Your task to perform on an android device: open app "PUBG MOBILE" (install if not already installed) Image 0: 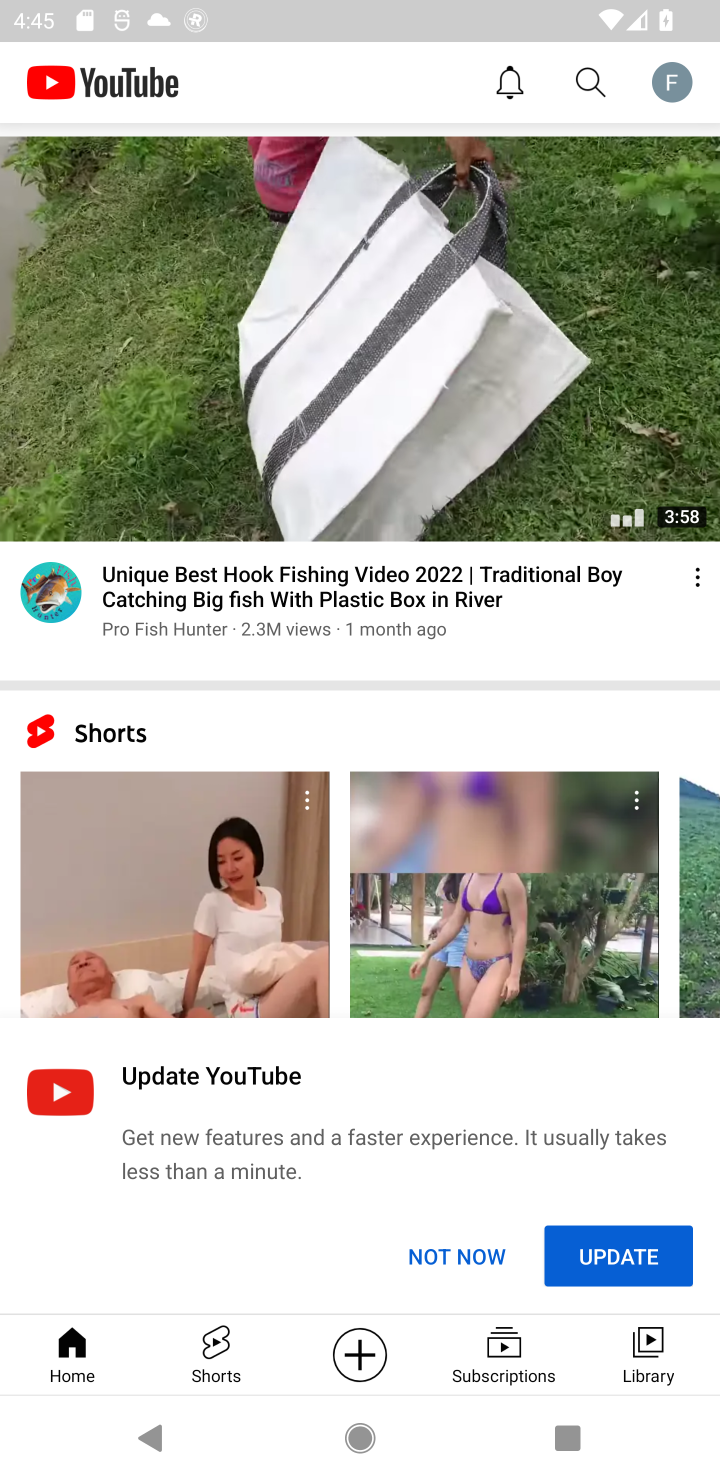
Step 0: press home button
Your task to perform on an android device: open app "PUBG MOBILE" (install if not already installed) Image 1: 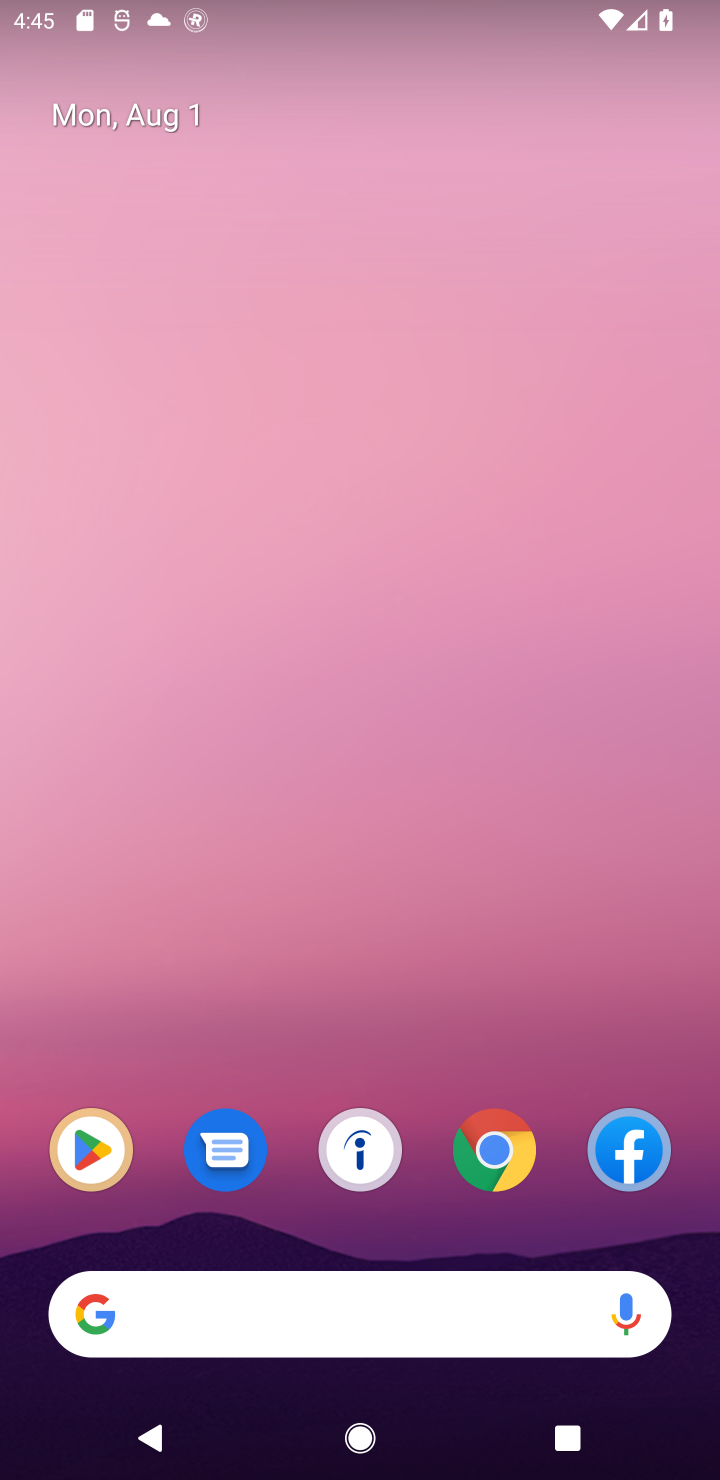
Step 1: click (228, 1276)
Your task to perform on an android device: open app "PUBG MOBILE" (install if not already installed) Image 2: 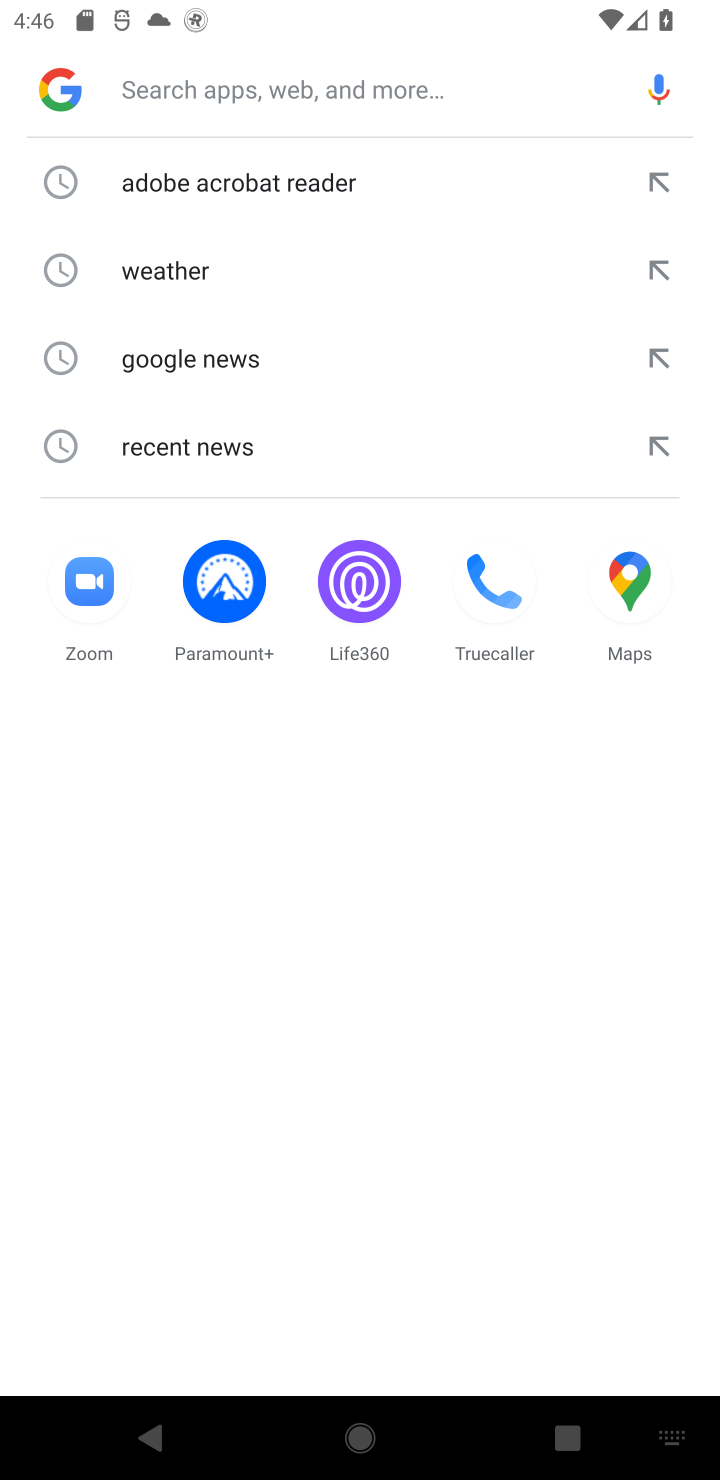
Step 2: press home button
Your task to perform on an android device: open app "PUBG MOBILE" (install if not already installed) Image 3: 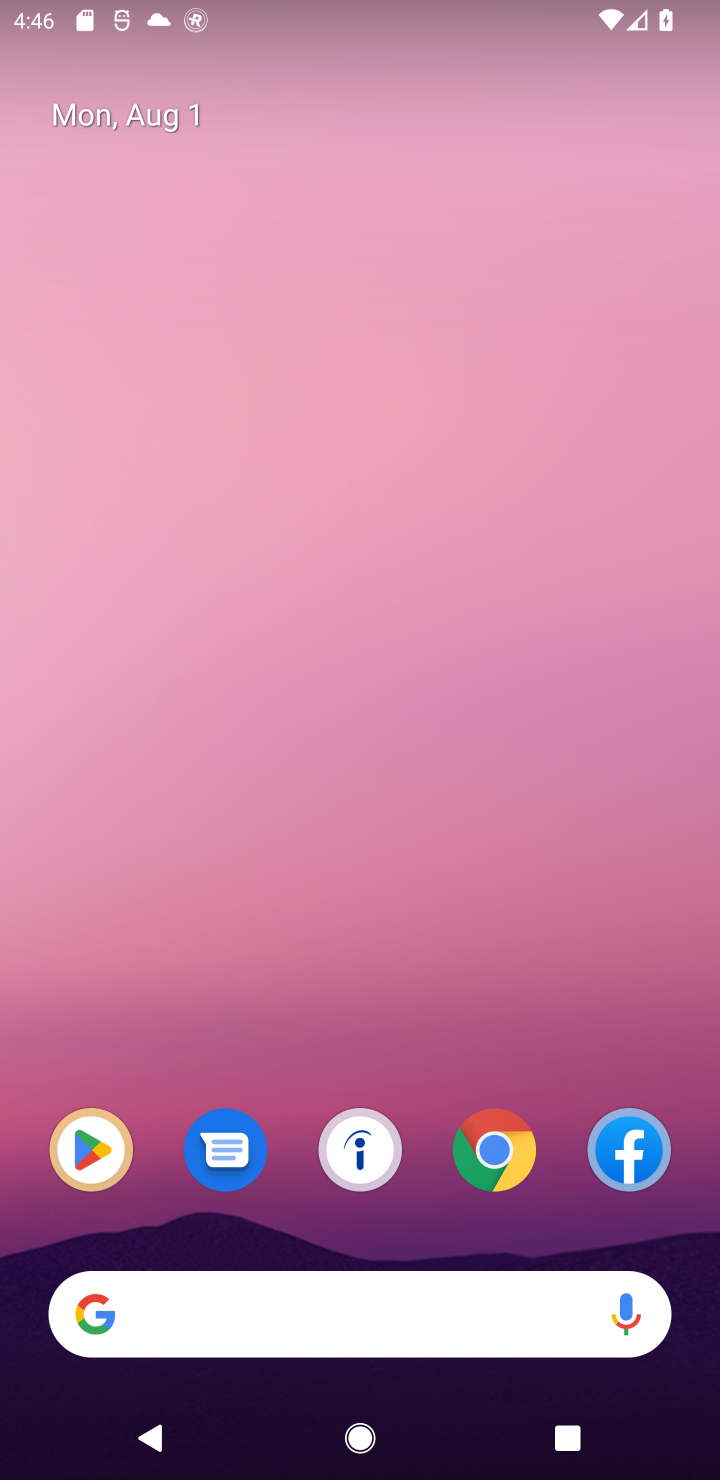
Step 3: click (93, 1178)
Your task to perform on an android device: open app "PUBG MOBILE" (install if not already installed) Image 4: 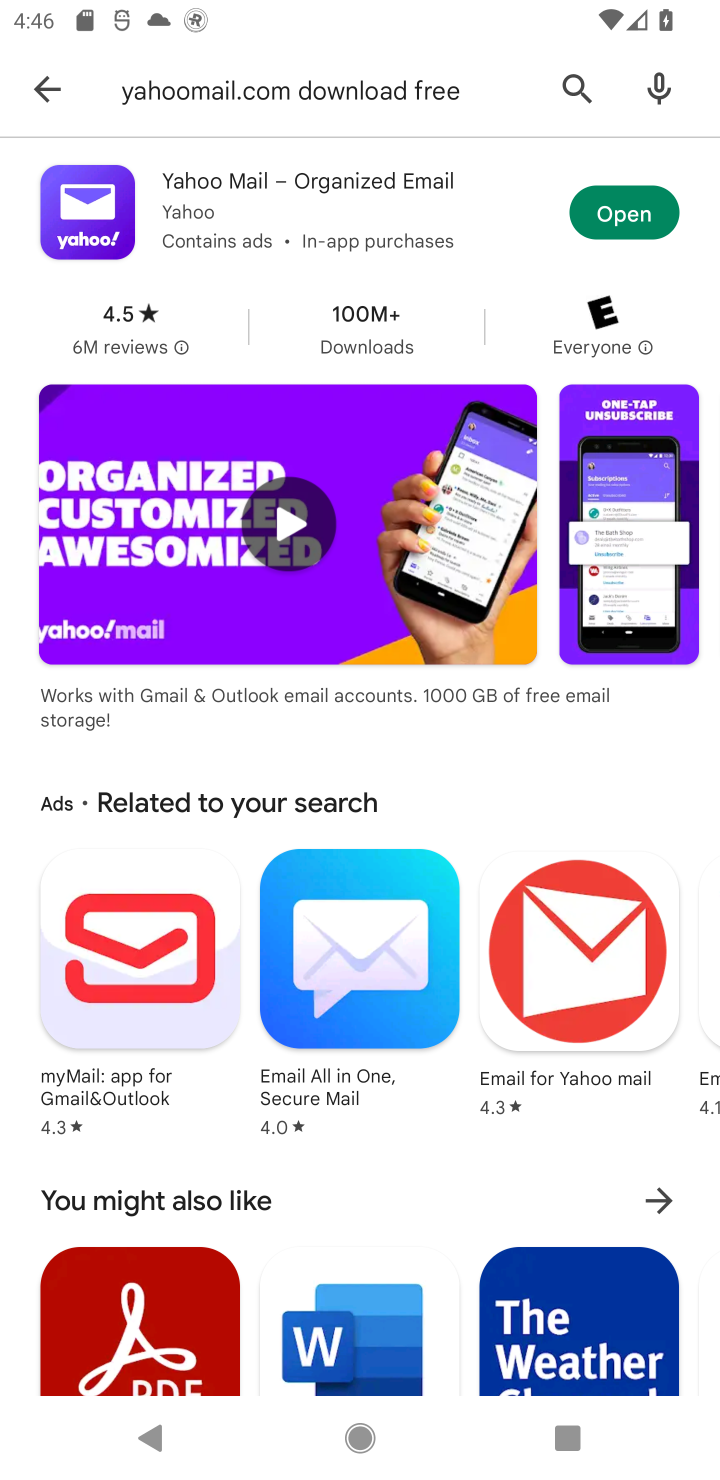
Step 4: click (563, 79)
Your task to perform on an android device: open app "PUBG MOBILE" (install if not already installed) Image 5: 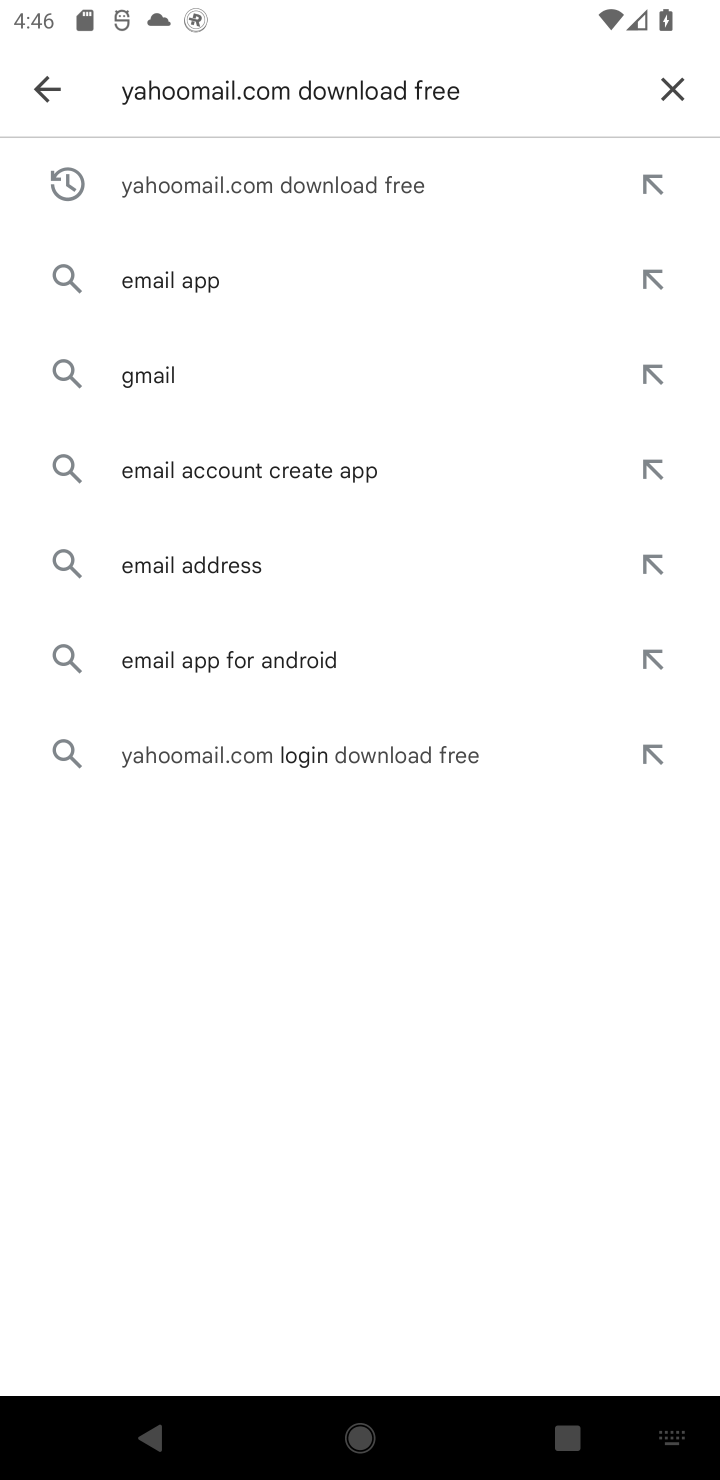
Step 5: click (652, 88)
Your task to perform on an android device: open app "PUBG MOBILE" (install if not already installed) Image 6: 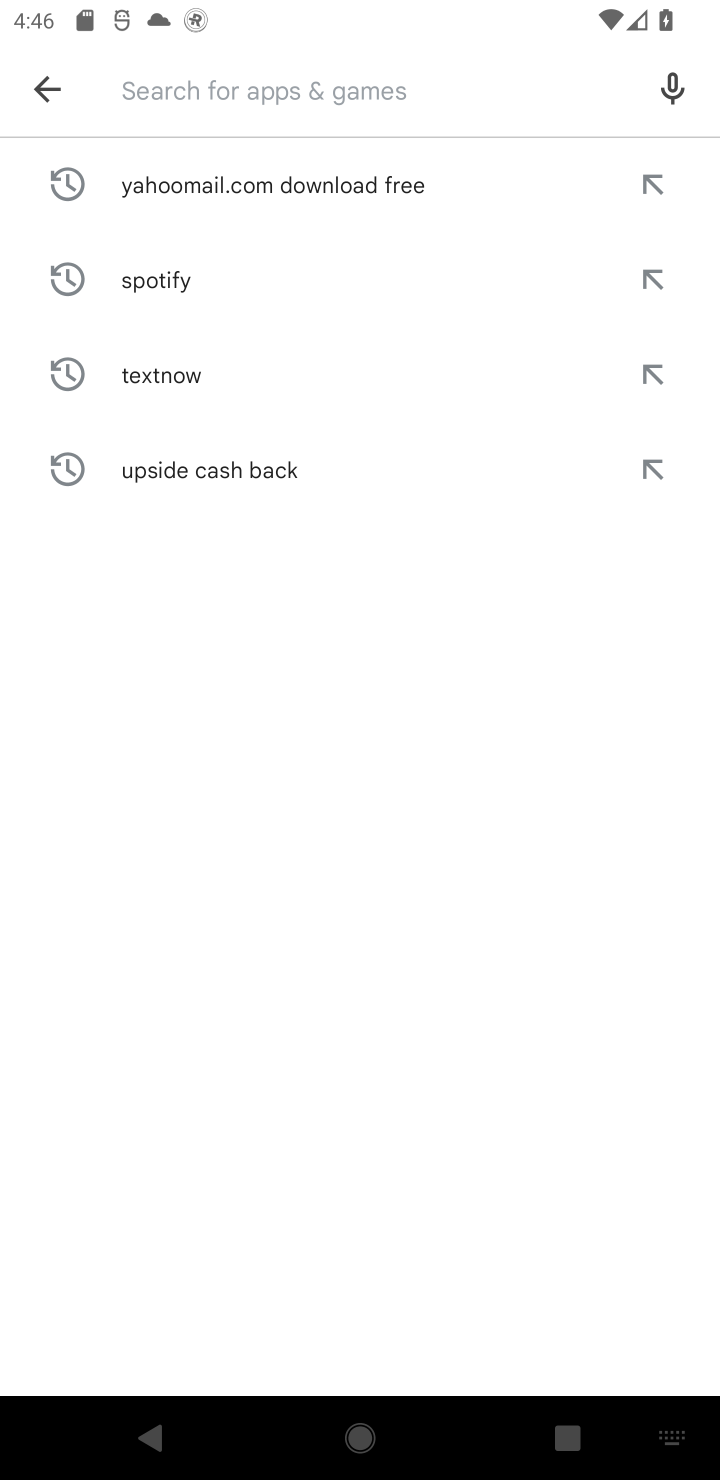
Step 6: type "pubg"
Your task to perform on an android device: open app "PUBG MOBILE" (install if not already installed) Image 7: 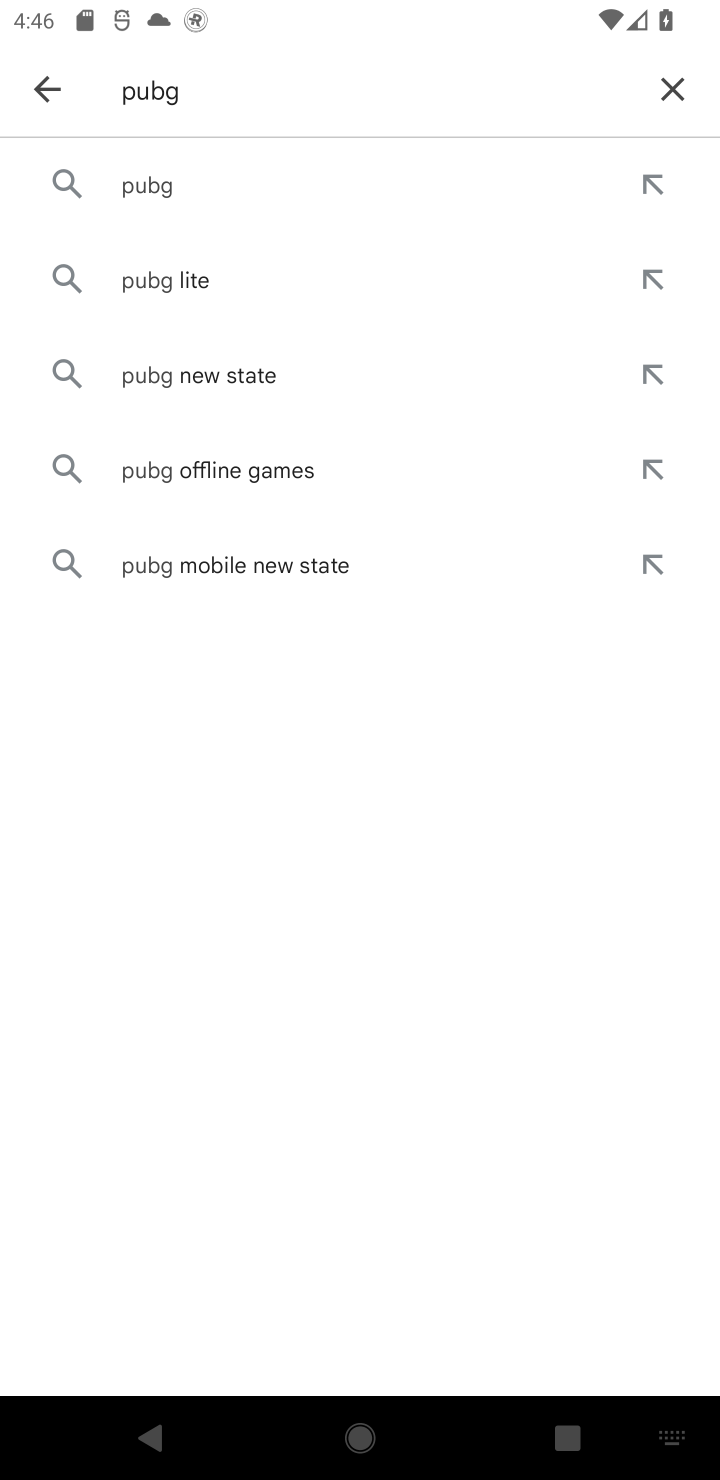
Step 7: click (206, 202)
Your task to perform on an android device: open app "PUBG MOBILE" (install if not already installed) Image 8: 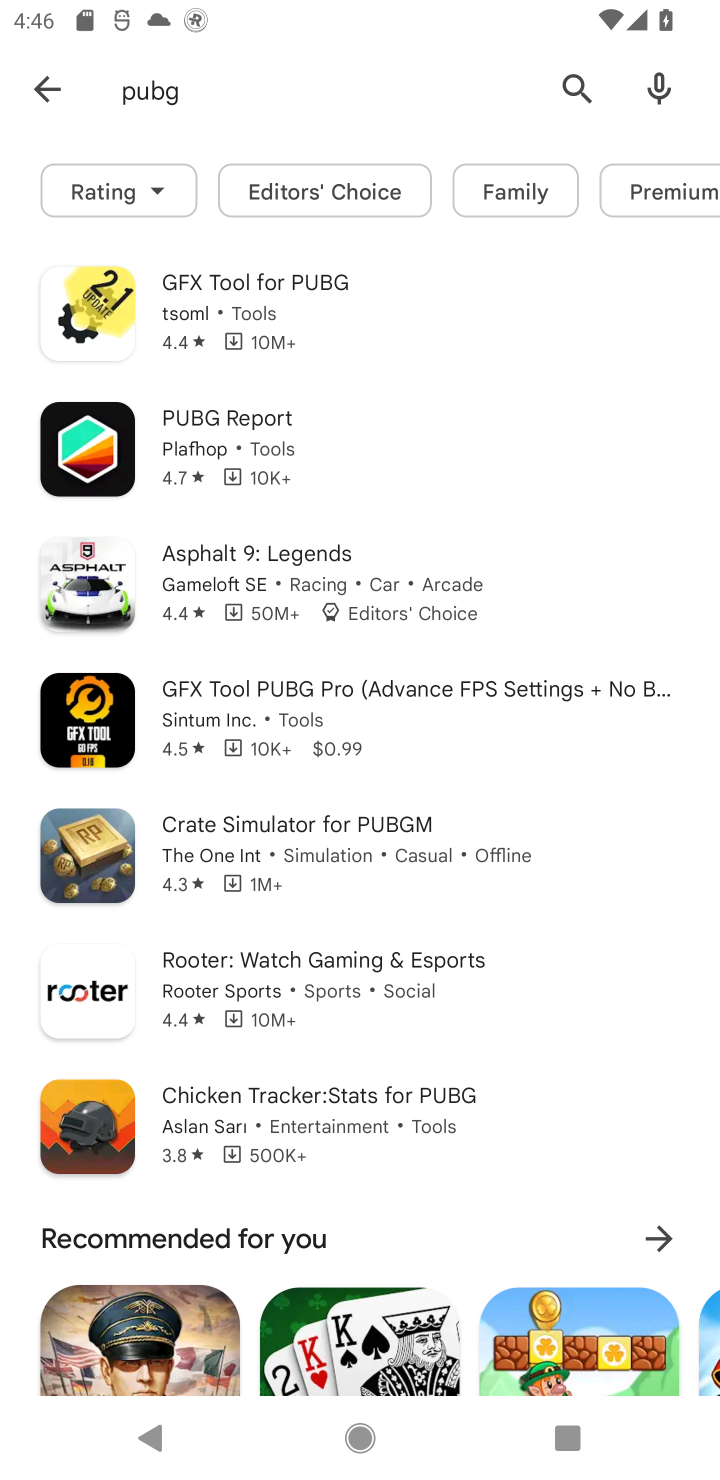
Step 8: task complete